Your task to perform on an android device: clear all cookies in the chrome app Image 0: 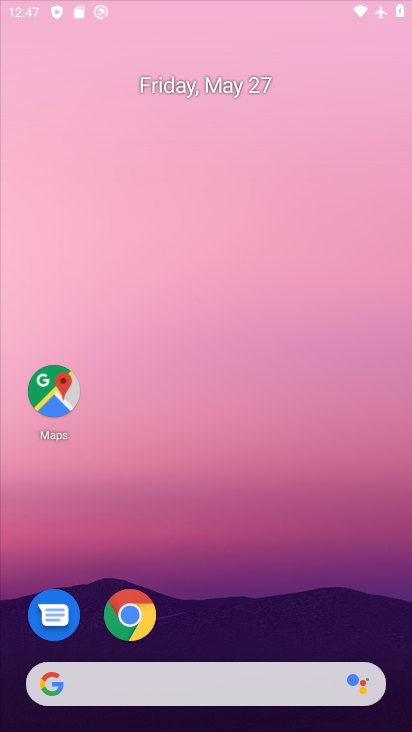
Step 0: press home button
Your task to perform on an android device: clear all cookies in the chrome app Image 1: 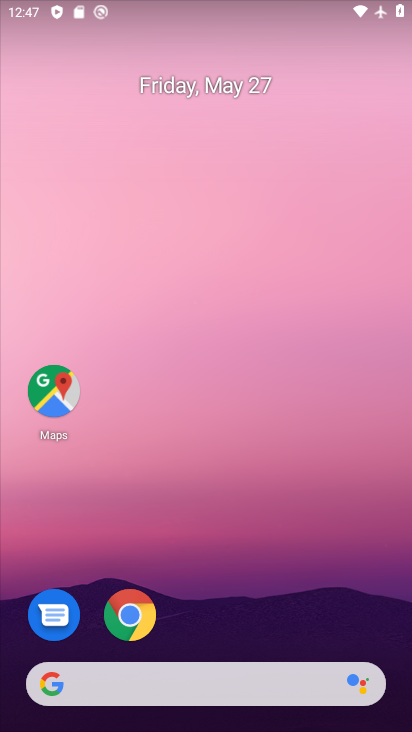
Step 1: click (116, 597)
Your task to perform on an android device: clear all cookies in the chrome app Image 2: 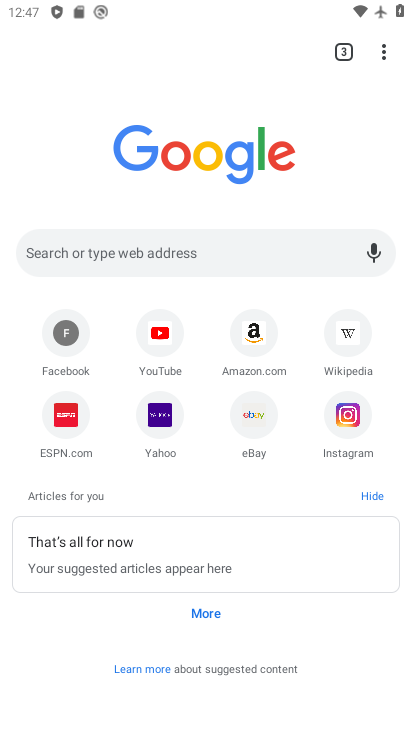
Step 2: click (388, 55)
Your task to perform on an android device: clear all cookies in the chrome app Image 3: 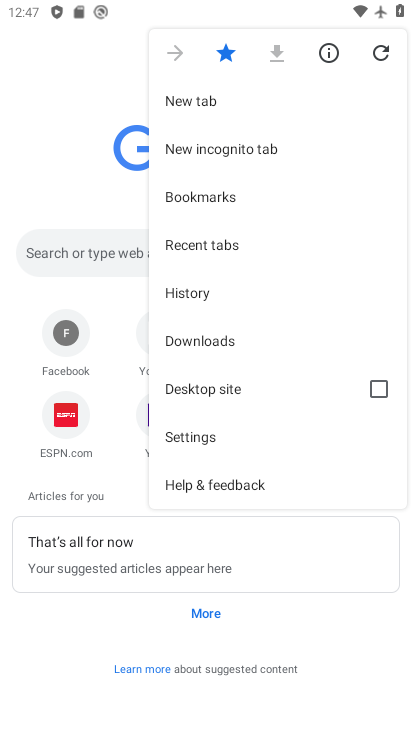
Step 3: click (203, 441)
Your task to perform on an android device: clear all cookies in the chrome app Image 4: 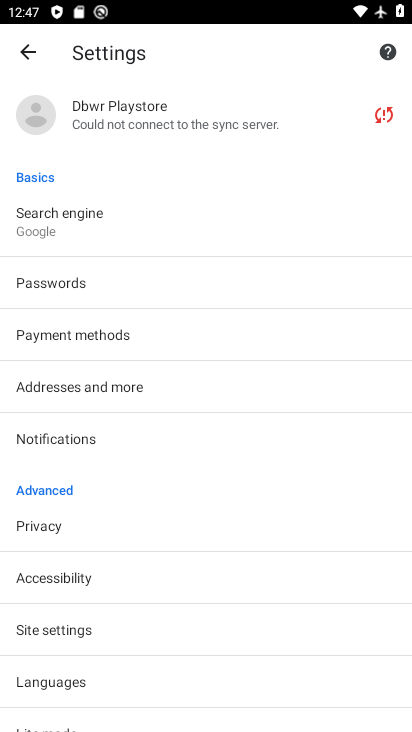
Step 4: click (30, 530)
Your task to perform on an android device: clear all cookies in the chrome app Image 5: 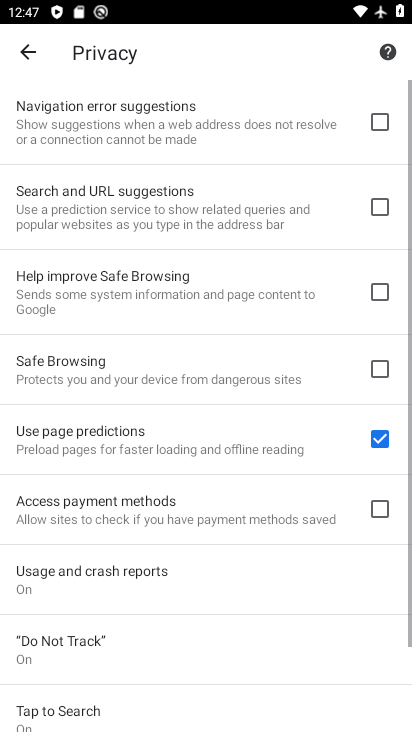
Step 5: drag from (246, 663) to (342, 26)
Your task to perform on an android device: clear all cookies in the chrome app Image 6: 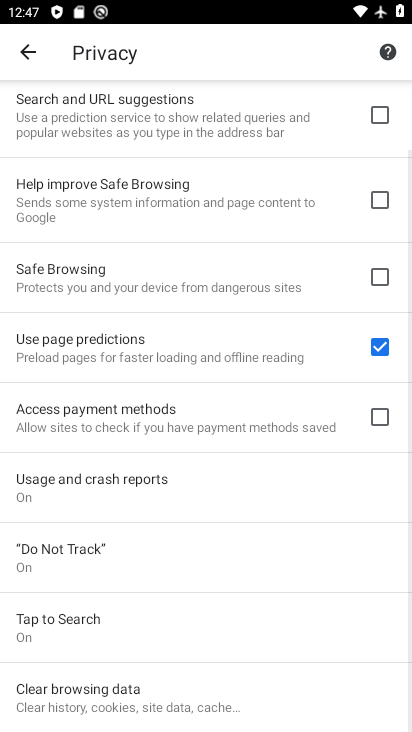
Step 6: click (75, 689)
Your task to perform on an android device: clear all cookies in the chrome app Image 7: 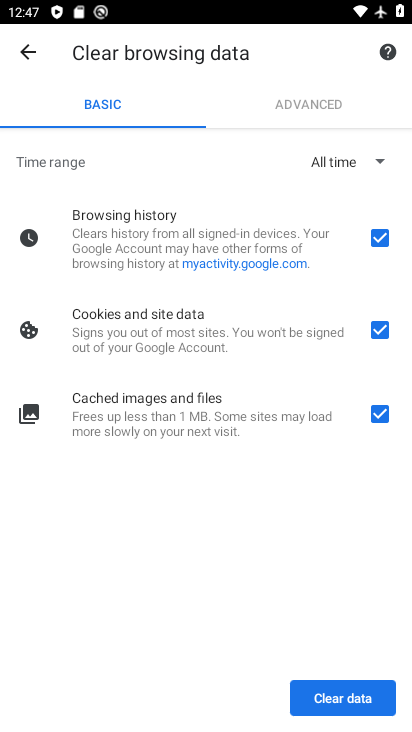
Step 7: click (378, 235)
Your task to perform on an android device: clear all cookies in the chrome app Image 8: 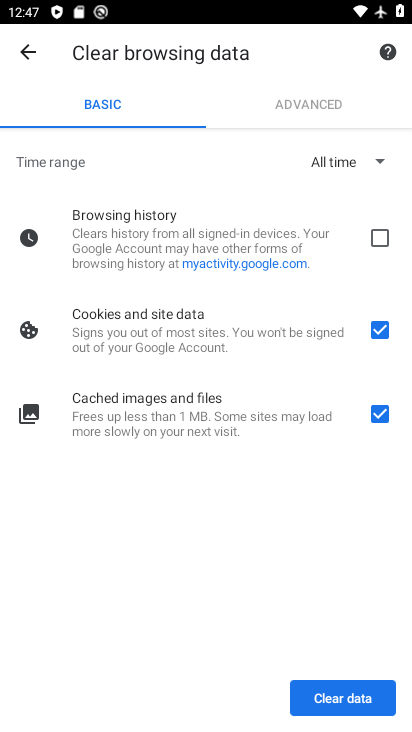
Step 8: click (379, 411)
Your task to perform on an android device: clear all cookies in the chrome app Image 9: 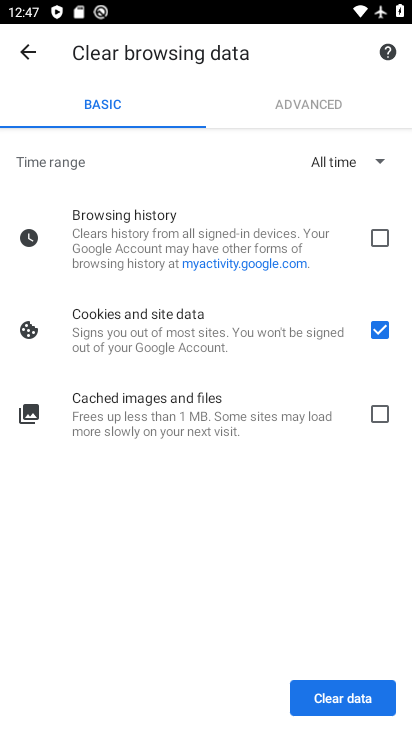
Step 9: click (334, 696)
Your task to perform on an android device: clear all cookies in the chrome app Image 10: 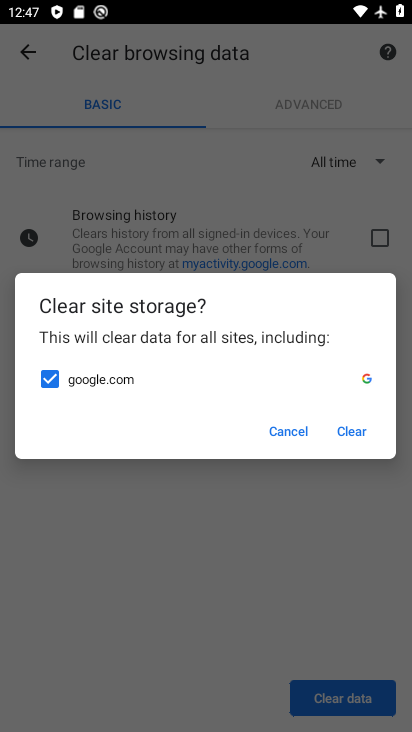
Step 10: click (361, 428)
Your task to perform on an android device: clear all cookies in the chrome app Image 11: 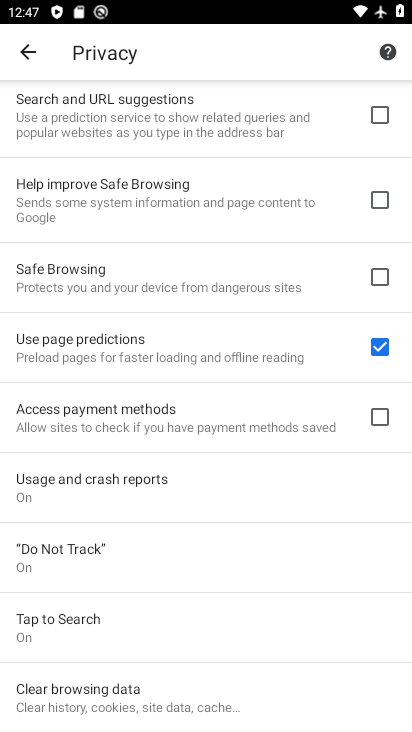
Step 11: task complete